Your task to perform on an android device: turn on wifi Image 0: 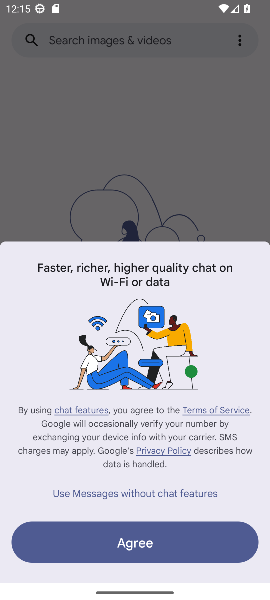
Step 0: press home button
Your task to perform on an android device: turn on wifi Image 1: 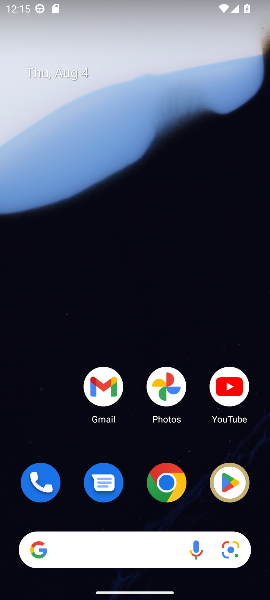
Step 1: drag from (134, 501) to (140, 183)
Your task to perform on an android device: turn on wifi Image 2: 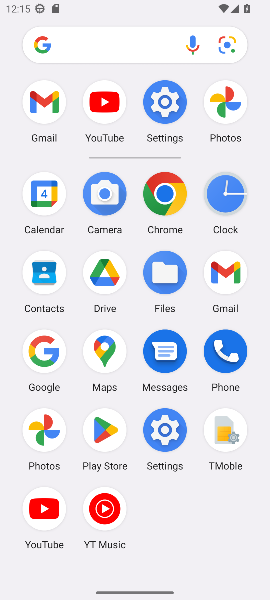
Step 2: click (166, 112)
Your task to perform on an android device: turn on wifi Image 3: 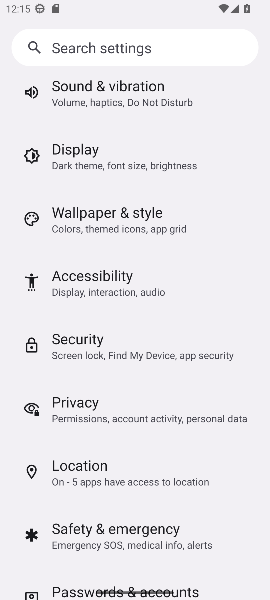
Step 3: drag from (116, 101) to (131, 410)
Your task to perform on an android device: turn on wifi Image 4: 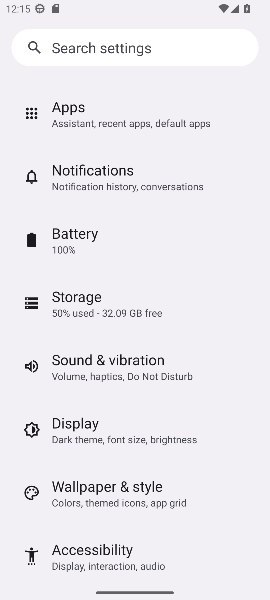
Step 4: drag from (108, 162) to (123, 457)
Your task to perform on an android device: turn on wifi Image 5: 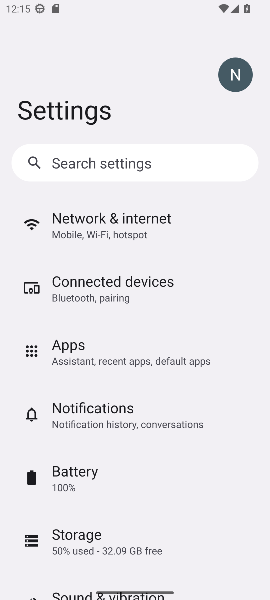
Step 5: click (117, 232)
Your task to perform on an android device: turn on wifi Image 6: 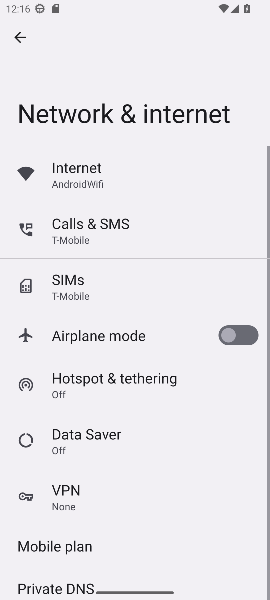
Step 6: click (91, 181)
Your task to perform on an android device: turn on wifi Image 7: 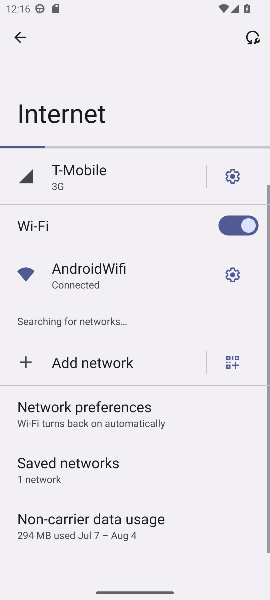
Step 7: click (161, 460)
Your task to perform on an android device: turn on wifi Image 8: 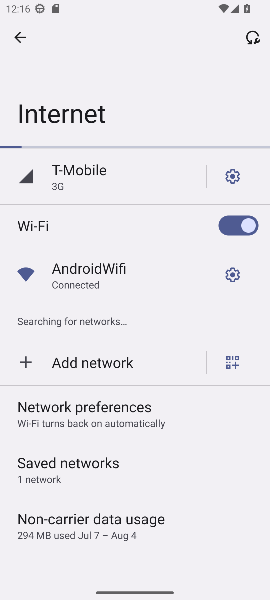
Step 8: task complete